Your task to perform on an android device: Go to internet settings Image 0: 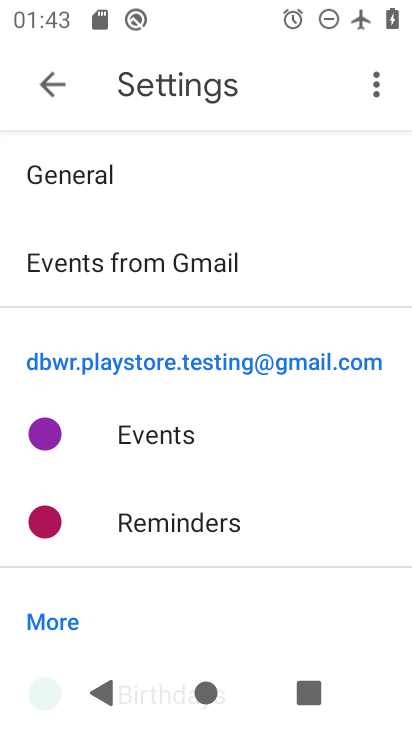
Step 0: press home button
Your task to perform on an android device: Go to internet settings Image 1: 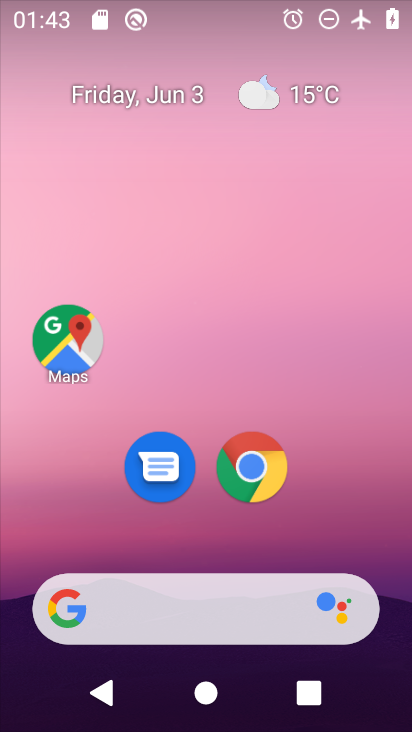
Step 1: drag from (400, 619) to (378, 109)
Your task to perform on an android device: Go to internet settings Image 2: 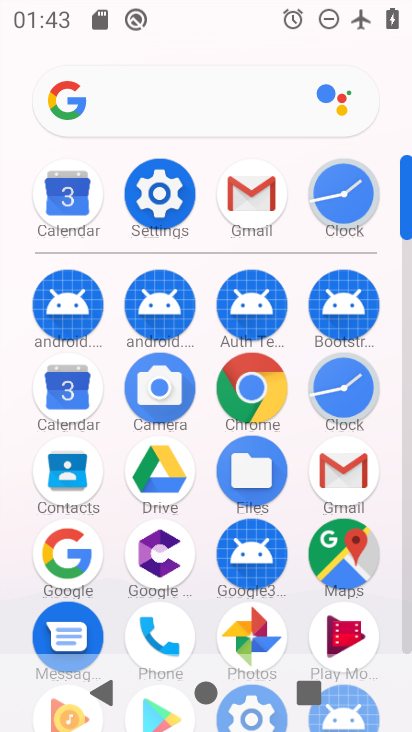
Step 2: click (402, 623)
Your task to perform on an android device: Go to internet settings Image 3: 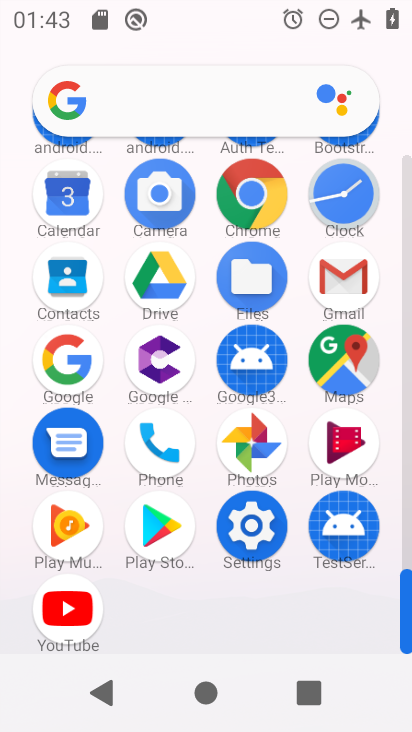
Step 3: click (249, 525)
Your task to perform on an android device: Go to internet settings Image 4: 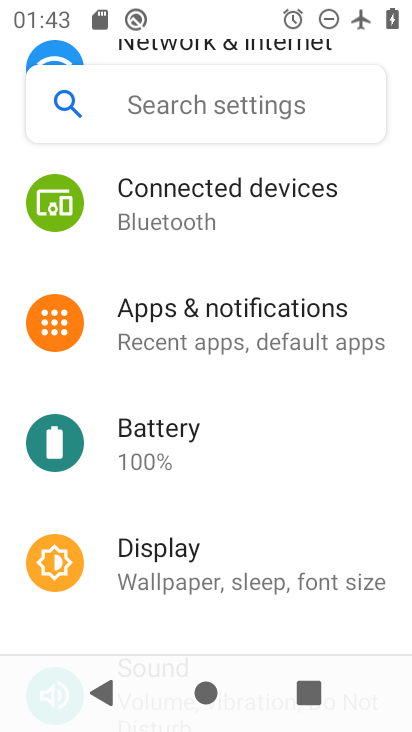
Step 4: drag from (344, 198) to (343, 488)
Your task to perform on an android device: Go to internet settings Image 5: 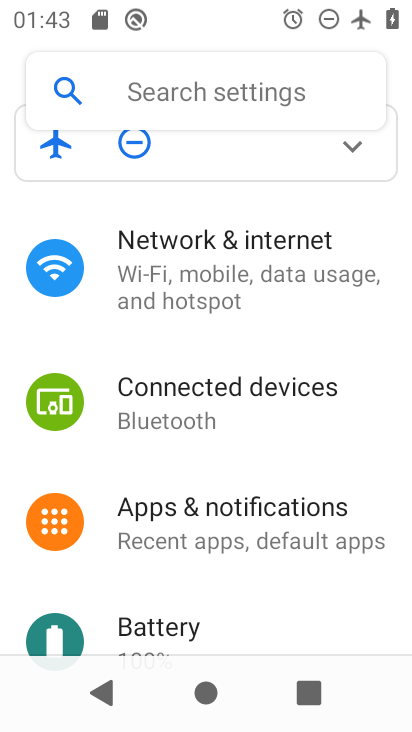
Step 5: click (175, 254)
Your task to perform on an android device: Go to internet settings Image 6: 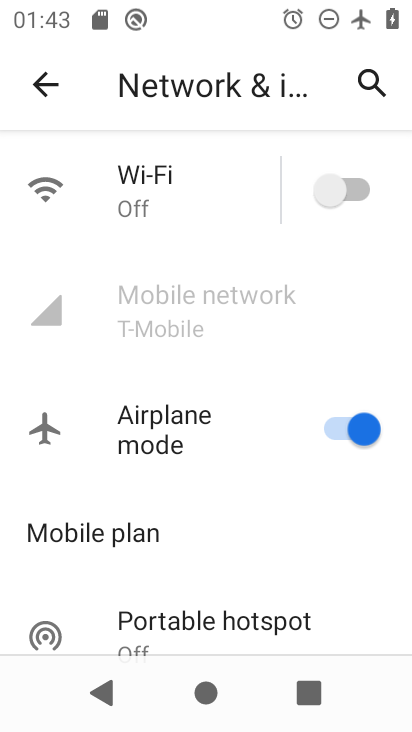
Step 6: click (327, 433)
Your task to perform on an android device: Go to internet settings Image 7: 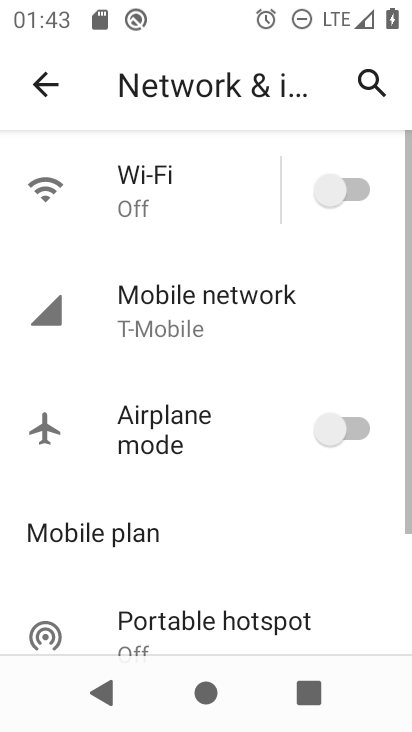
Step 7: click (145, 293)
Your task to perform on an android device: Go to internet settings Image 8: 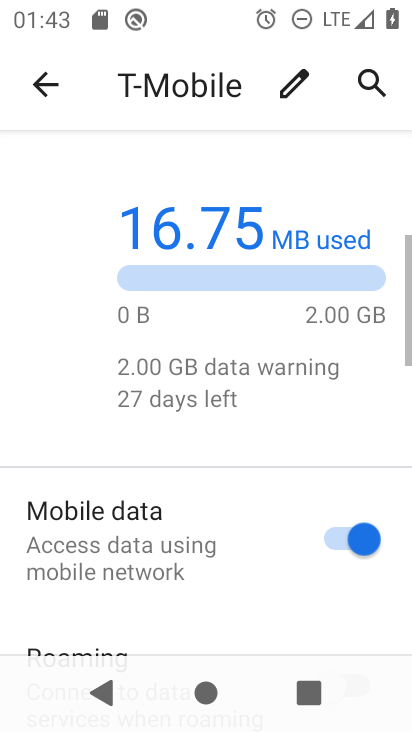
Step 8: task complete